Your task to perform on an android device: What's the news this week? Image 0: 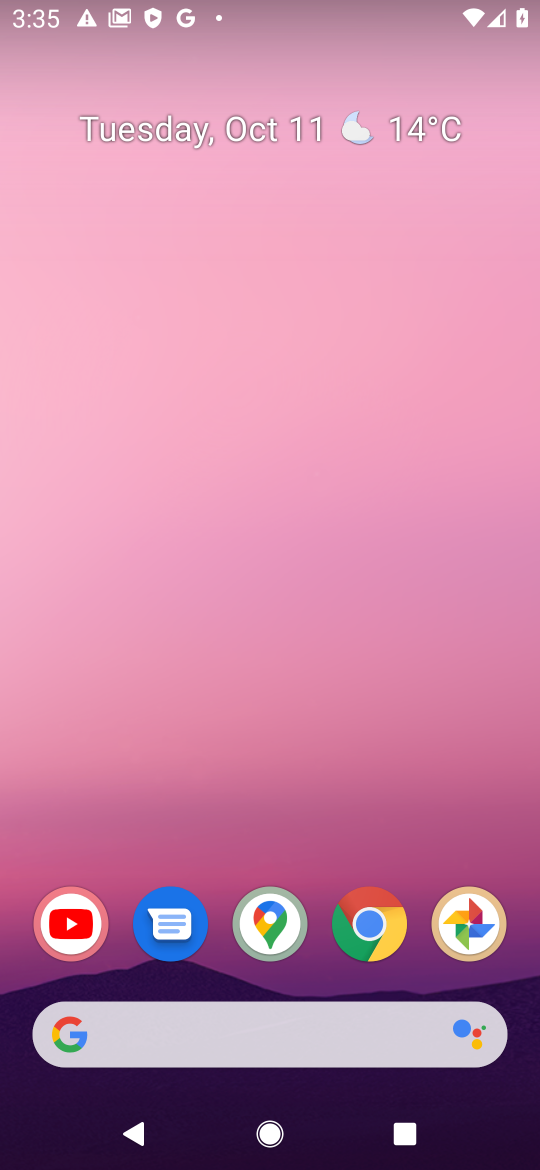
Step 0: drag from (334, 885) to (346, 171)
Your task to perform on an android device: What's the news this week? Image 1: 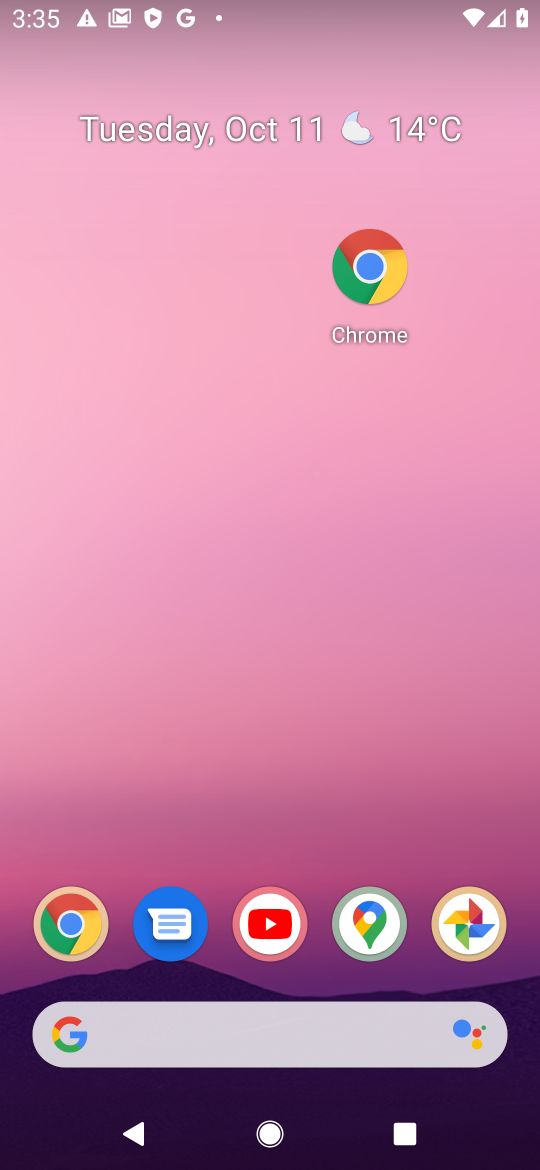
Step 1: click (363, 280)
Your task to perform on an android device: What's the news this week? Image 2: 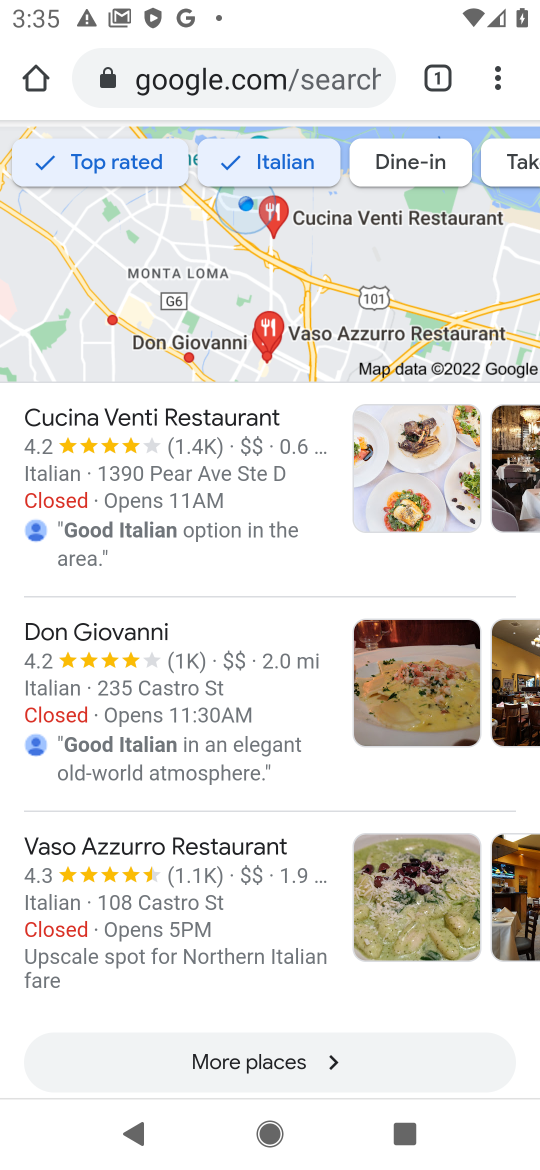
Step 2: click (283, 94)
Your task to perform on an android device: What's the news this week? Image 3: 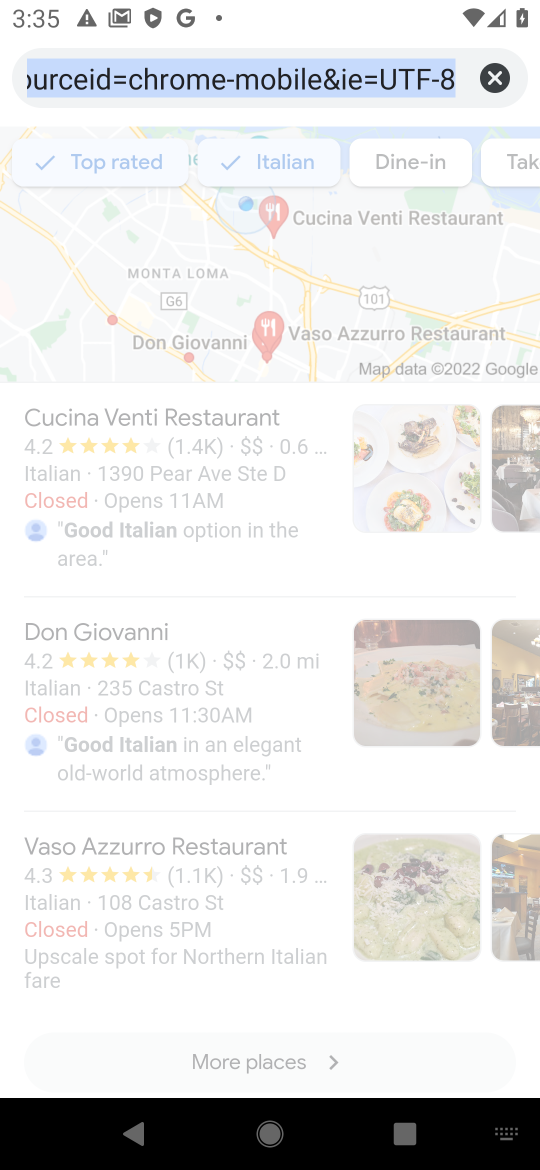
Step 3: type "news this week"
Your task to perform on an android device: What's the news this week? Image 4: 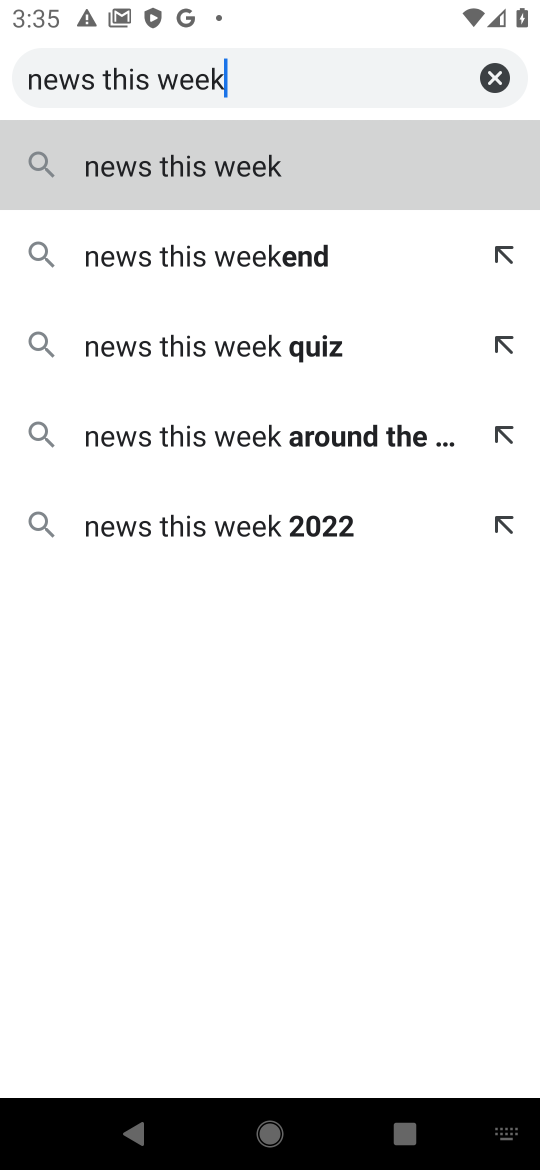
Step 4: click (267, 151)
Your task to perform on an android device: What's the news this week? Image 5: 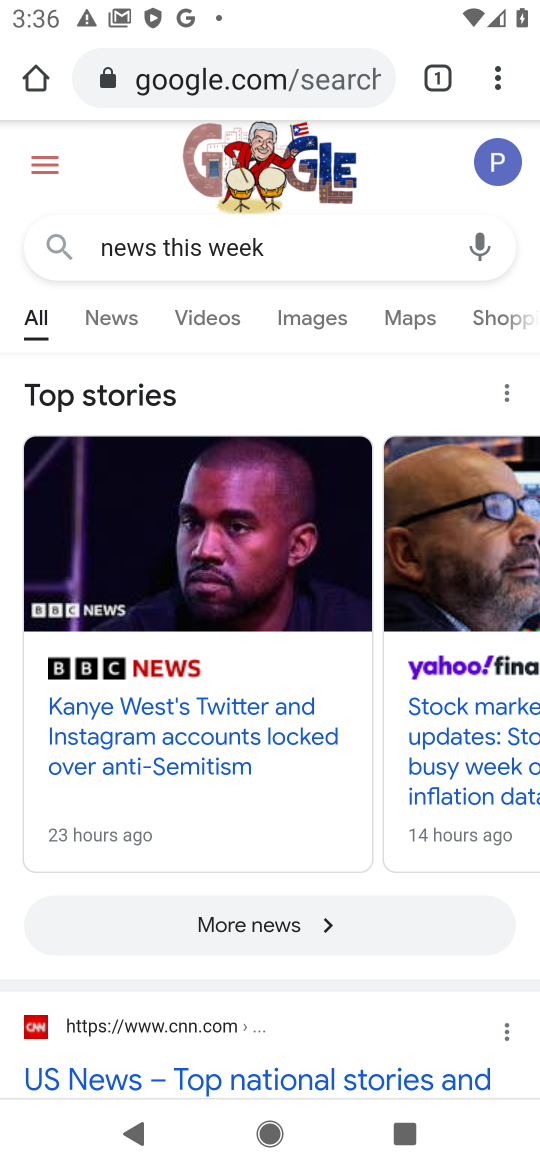
Step 5: click (110, 323)
Your task to perform on an android device: What's the news this week? Image 6: 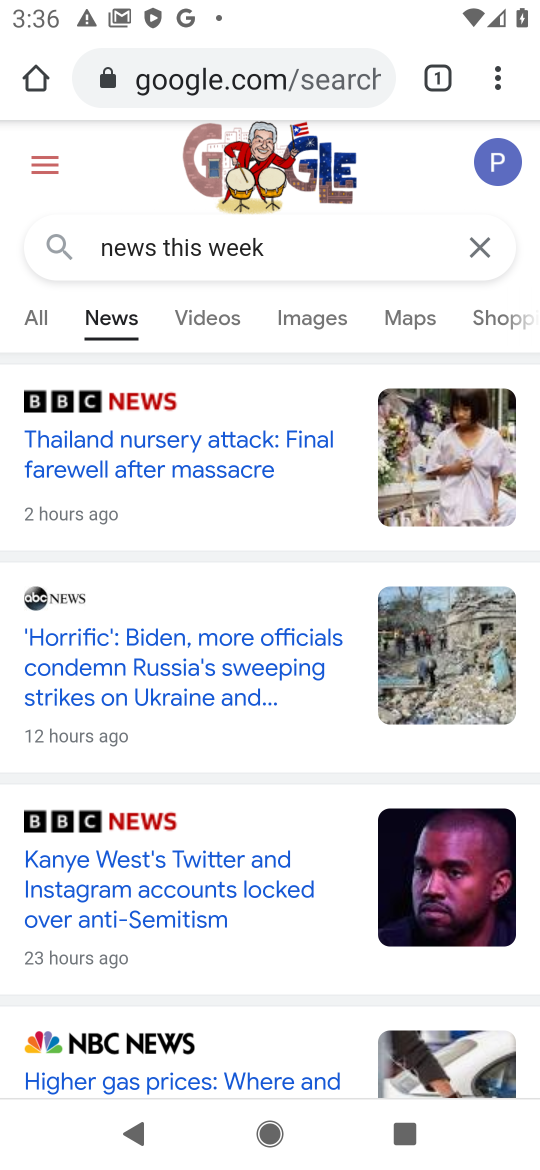
Step 6: task complete